Your task to perform on an android device: What's the weather going to be tomorrow? Image 0: 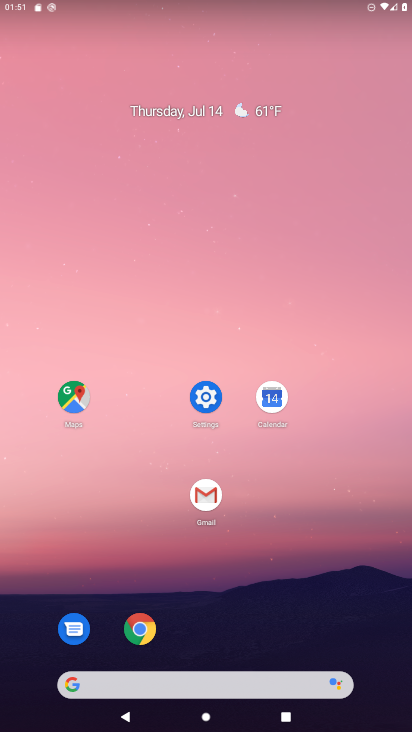
Step 0: drag from (26, 198) to (365, 246)
Your task to perform on an android device: What's the weather going to be tomorrow? Image 1: 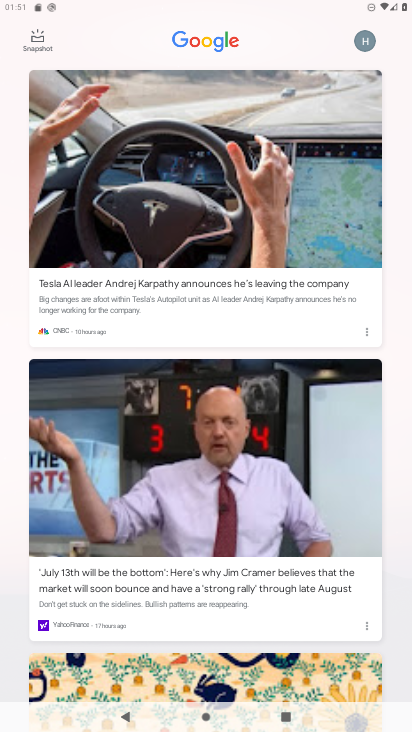
Step 1: task complete